Your task to perform on an android device: Go to Yahoo.com Image 0: 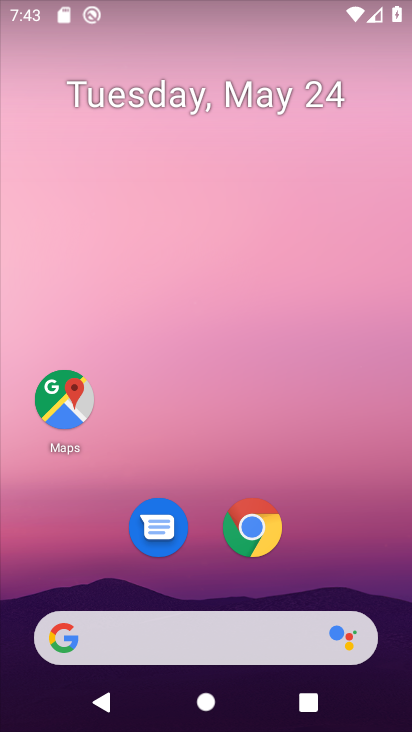
Step 0: click (255, 530)
Your task to perform on an android device: Go to Yahoo.com Image 1: 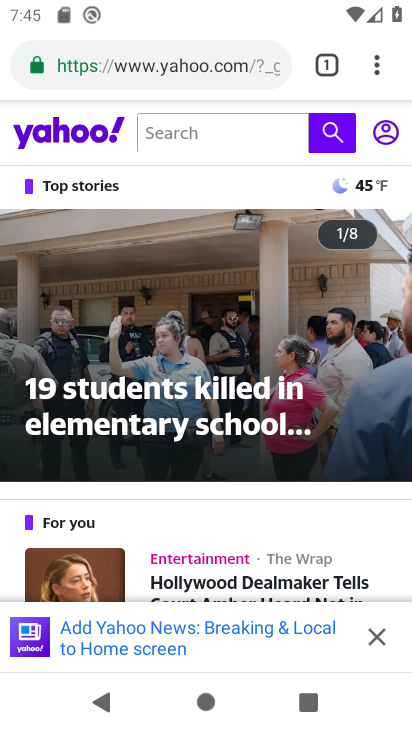
Step 1: task complete